Your task to perform on an android device: Go to CNN.com Image 0: 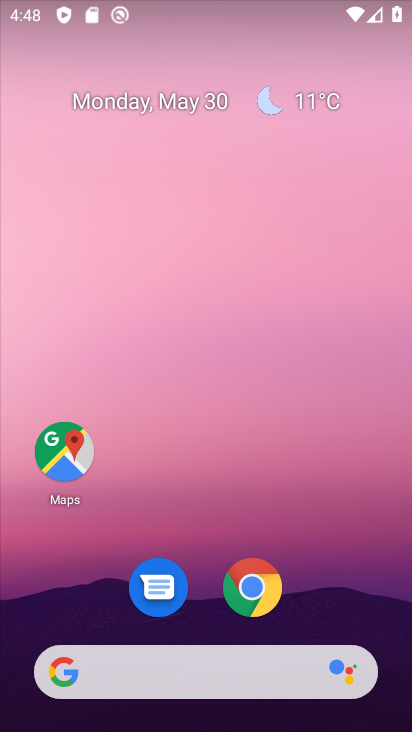
Step 0: drag from (321, 504) to (261, 1)
Your task to perform on an android device: Go to CNN.com Image 1: 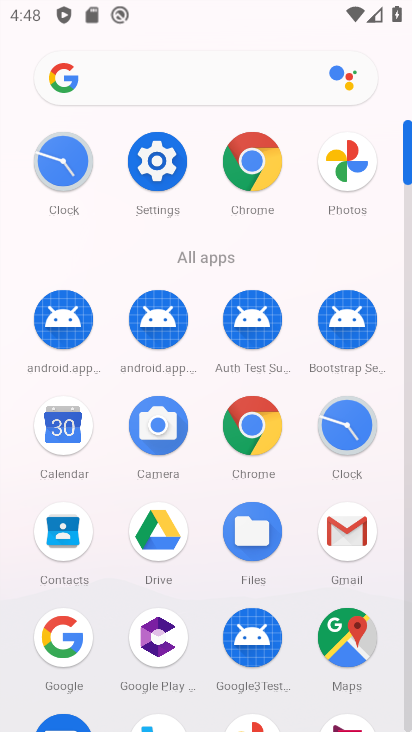
Step 1: drag from (3, 461) to (16, 240)
Your task to perform on an android device: Go to CNN.com Image 2: 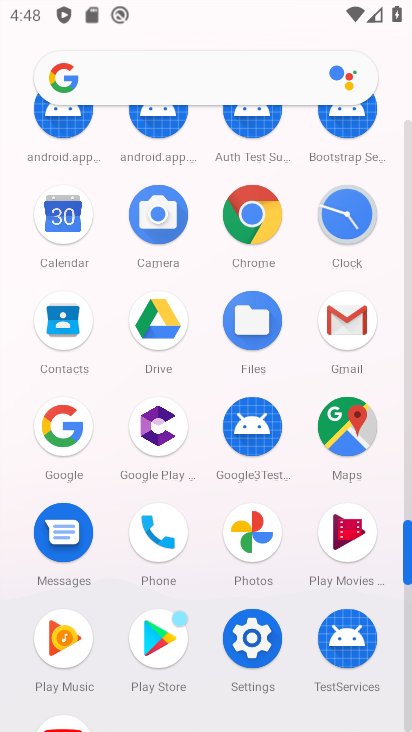
Step 2: click (253, 210)
Your task to perform on an android device: Go to CNN.com Image 3: 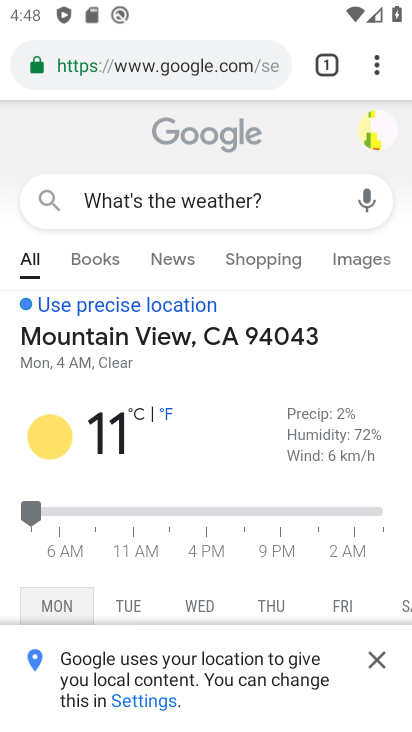
Step 3: click (171, 63)
Your task to perform on an android device: Go to CNN.com Image 4: 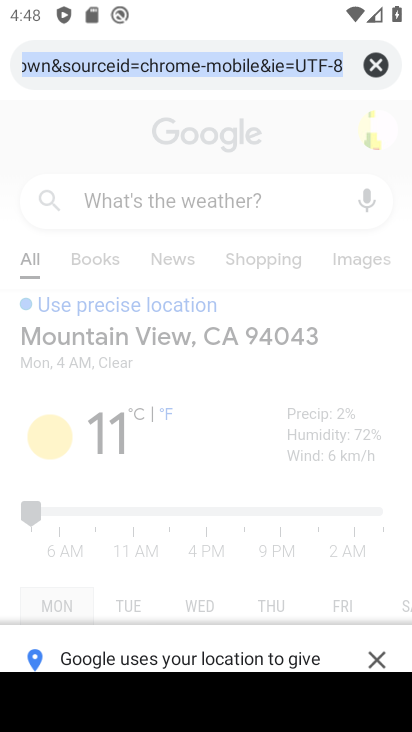
Step 4: click (375, 57)
Your task to perform on an android device: Go to CNN.com Image 5: 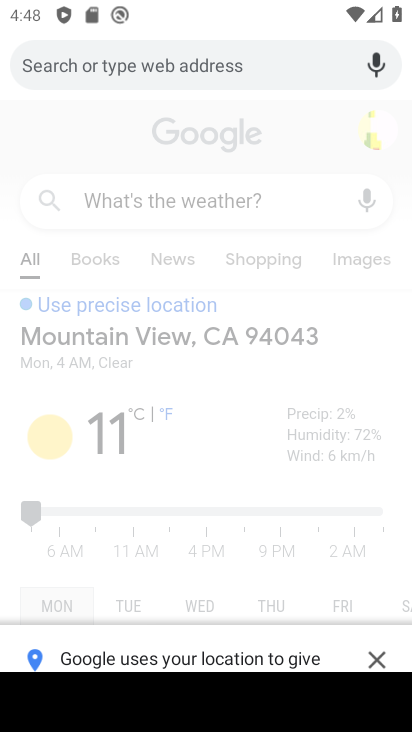
Step 5: type "CNN.com"
Your task to perform on an android device: Go to CNN.com Image 6: 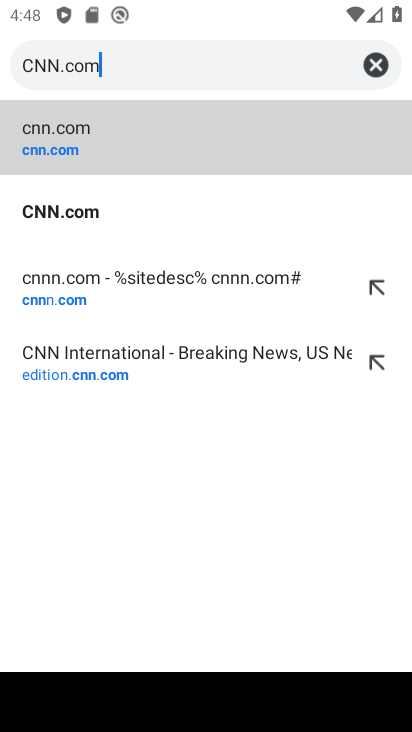
Step 6: type ""
Your task to perform on an android device: Go to CNN.com Image 7: 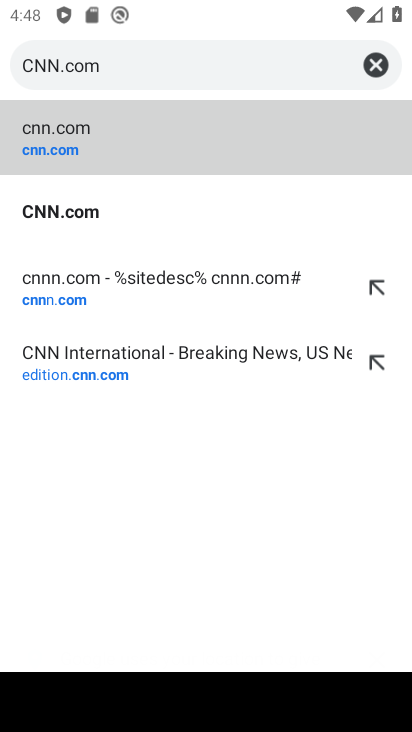
Step 7: click (121, 135)
Your task to perform on an android device: Go to CNN.com Image 8: 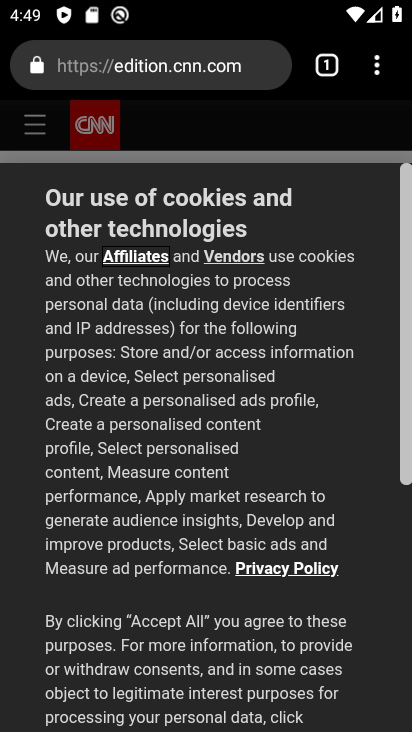
Step 8: task complete